Your task to perform on an android device: allow notifications from all sites in the chrome app Image 0: 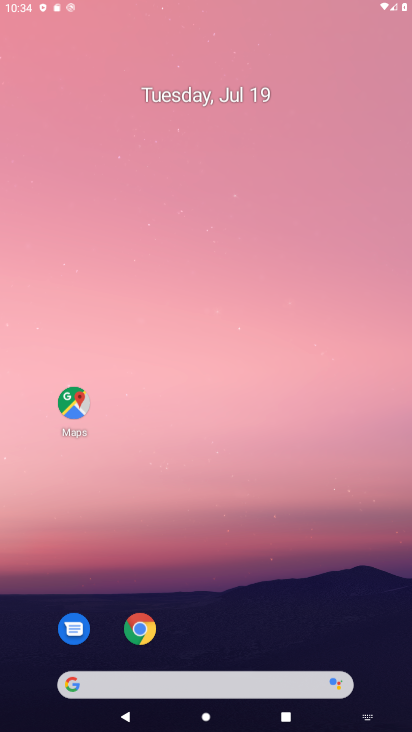
Step 0: drag from (192, 243) to (275, 148)
Your task to perform on an android device: allow notifications from all sites in the chrome app Image 1: 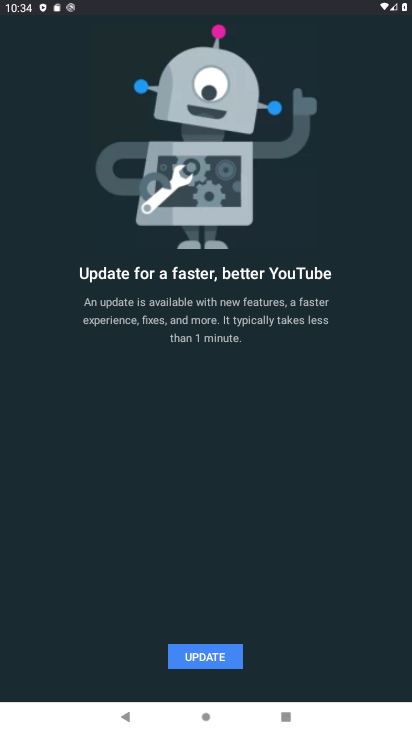
Step 1: press back button
Your task to perform on an android device: allow notifications from all sites in the chrome app Image 2: 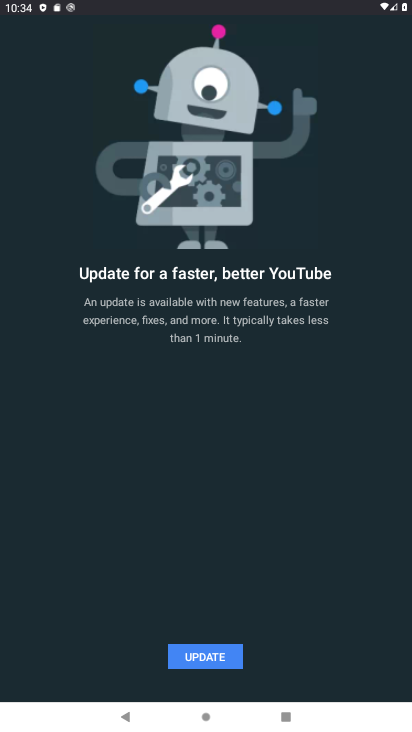
Step 2: press back button
Your task to perform on an android device: allow notifications from all sites in the chrome app Image 3: 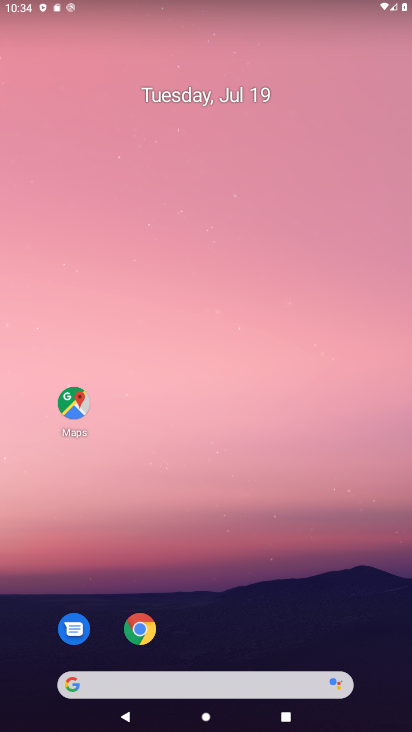
Step 3: drag from (245, 630) to (230, 166)
Your task to perform on an android device: allow notifications from all sites in the chrome app Image 4: 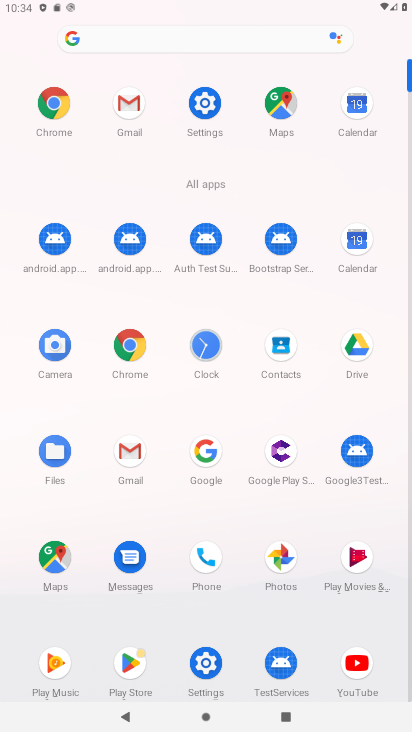
Step 4: click (128, 349)
Your task to perform on an android device: allow notifications from all sites in the chrome app Image 5: 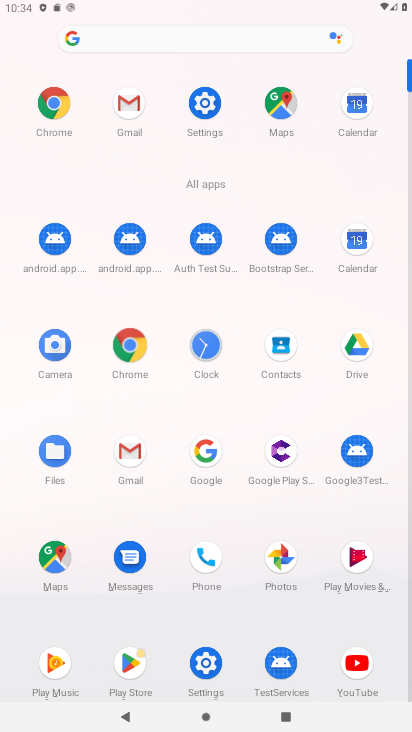
Step 5: click (128, 349)
Your task to perform on an android device: allow notifications from all sites in the chrome app Image 6: 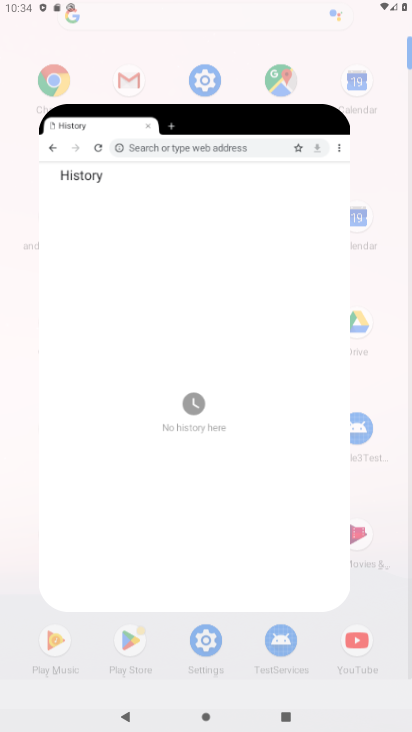
Step 6: click (128, 349)
Your task to perform on an android device: allow notifications from all sites in the chrome app Image 7: 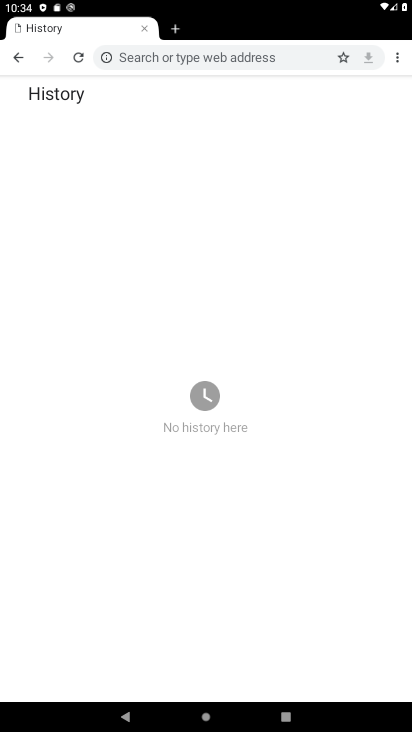
Step 7: drag from (387, 59) to (278, 263)
Your task to perform on an android device: allow notifications from all sites in the chrome app Image 8: 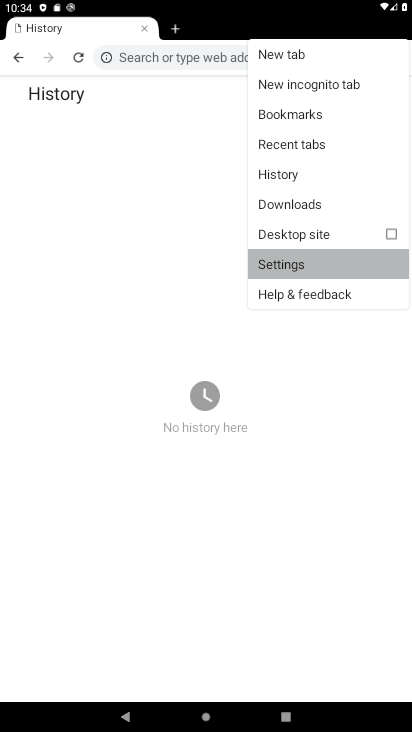
Step 8: click (280, 255)
Your task to perform on an android device: allow notifications from all sites in the chrome app Image 9: 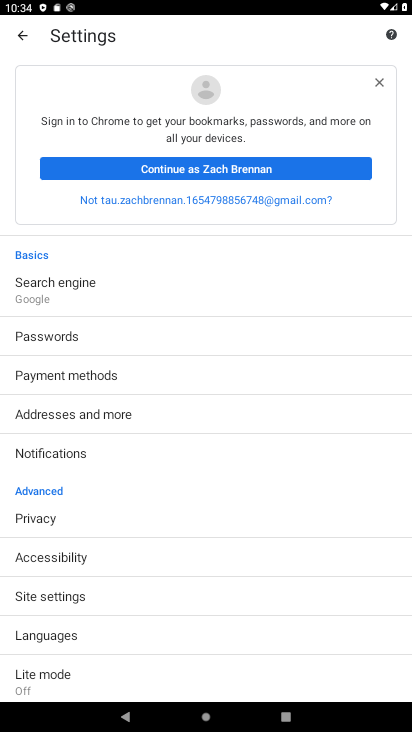
Step 9: click (42, 588)
Your task to perform on an android device: allow notifications from all sites in the chrome app Image 10: 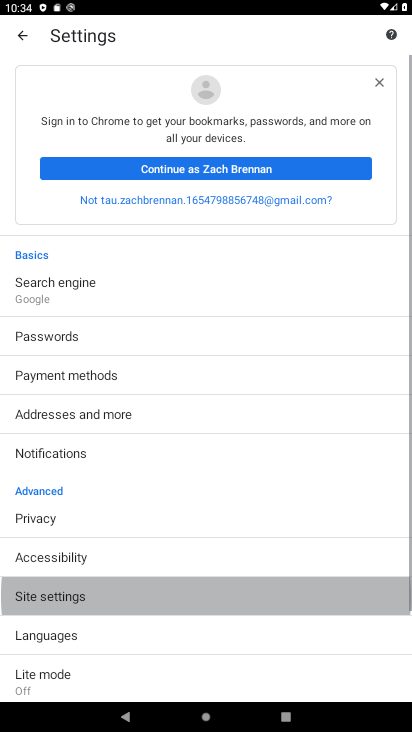
Step 10: click (42, 588)
Your task to perform on an android device: allow notifications from all sites in the chrome app Image 11: 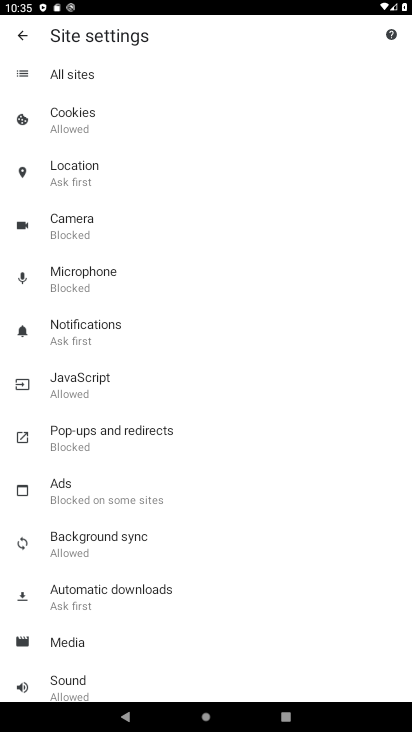
Step 11: click (81, 332)
Your task to perform on an android device: allow notifications from all sites in the chrome app Image 12: 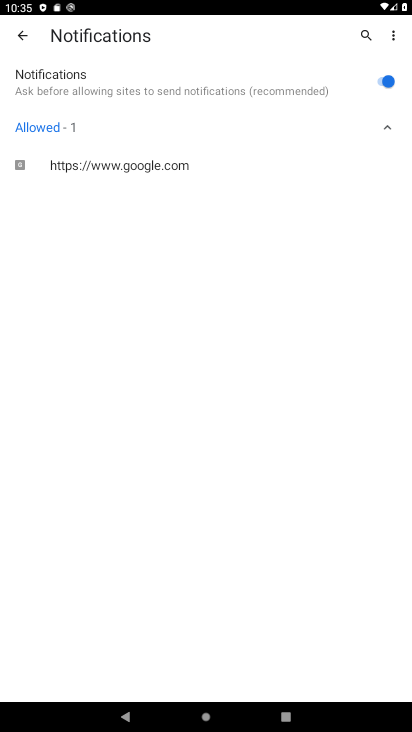
Step 12: task complete